Your task to perform on an android device: Open accessibility settings Image 0: 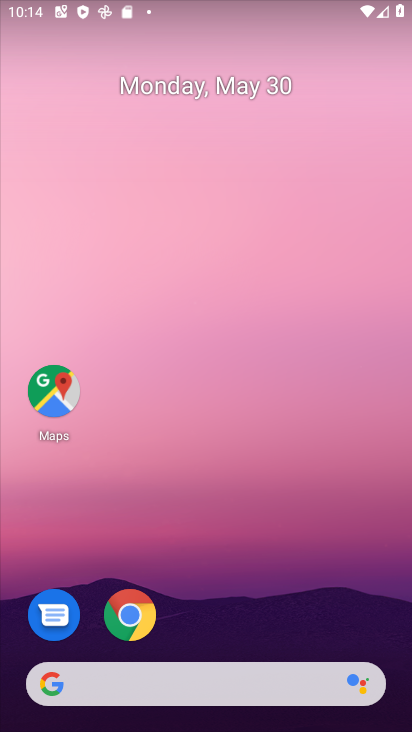
Step 0: drag from (208, 389) to (103, 0)
Your task to perform on an android device: Open accessibility settings Image 1: 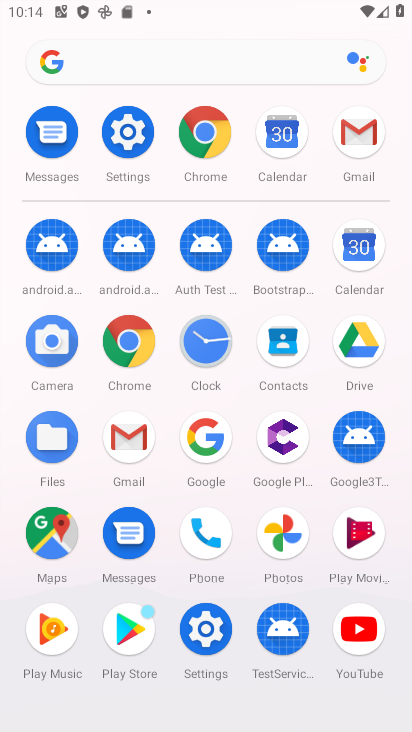
Step 1: click (121, 131)
Your task to perform on an android device: Open accessibility settings Image 2: 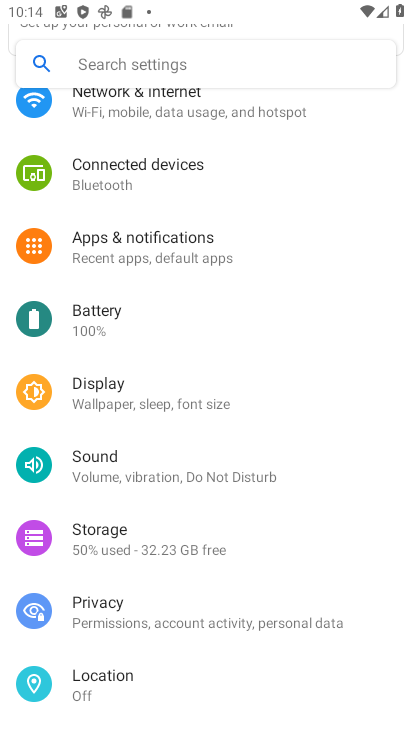
Step 2: drag from (247, 523) to (223, 7)
Your task to perform on an android device: Open accessibility settings Image 3: 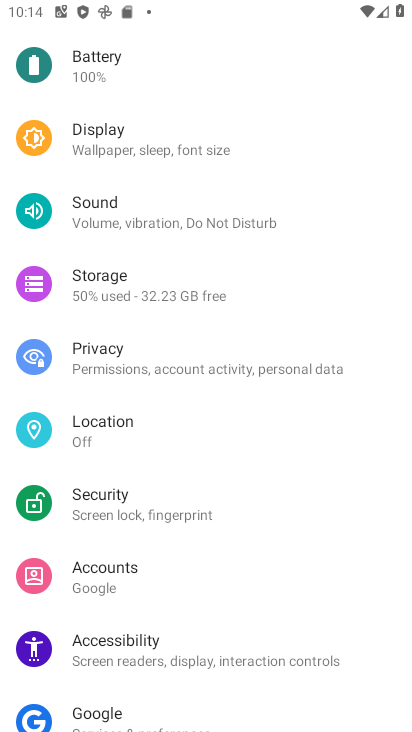
Step 3: click (197, 632)
Your task to perform on an android device: Open accessibility settings Image 4: 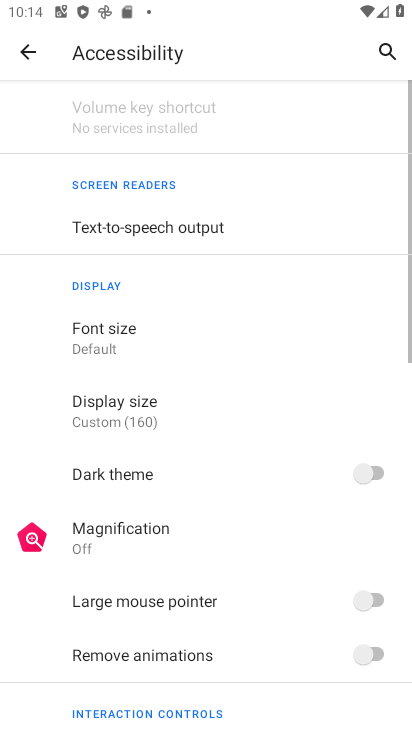
Step 4: task complete